Your task to perform on an android device: turn off notifications in google photos Image 0: 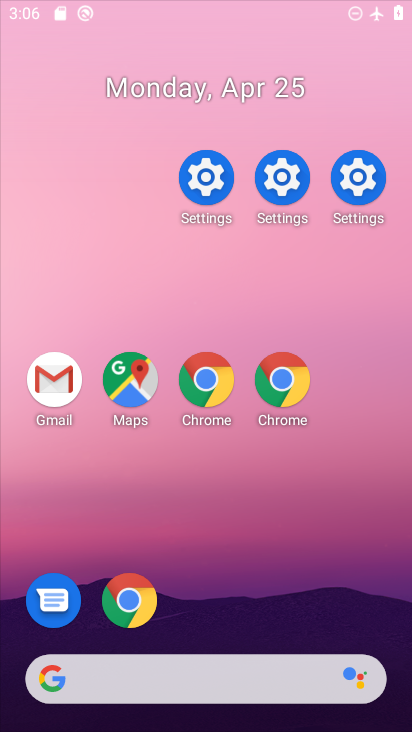
Step 0: click (78, 94)
Your task to perform on an android device: turn off notifications in google photos Image 1: 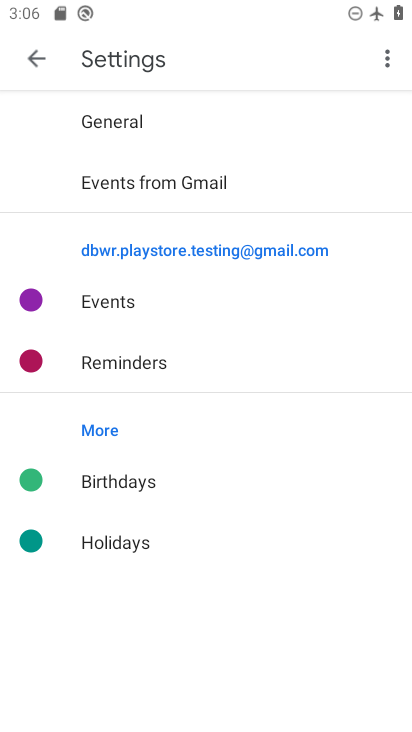
Step 1: press home button
Your task to perform on an android device: turn off notifications in google photos Image 2: 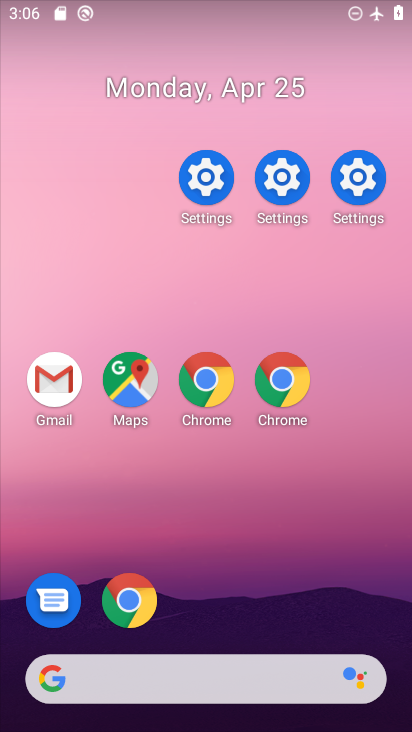
Step 2: drag from (273, 669) to (177, 247)
Your task to perform on an android device: turn off notifications in google photos Image 3: 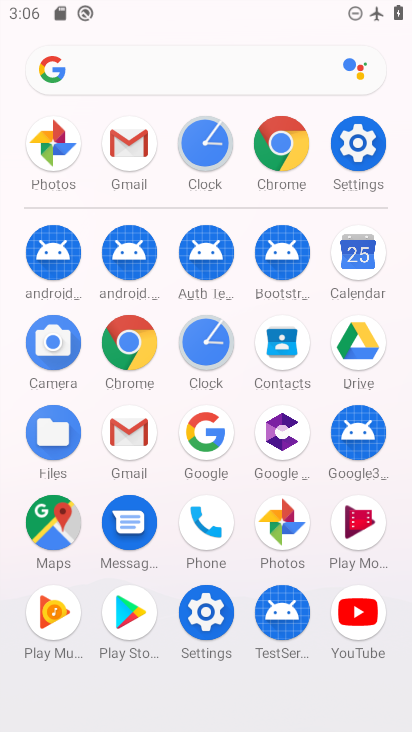
Step 3: click (280, 515)
Your task to perform on an android device: turn off notifications in google photos Image 4: 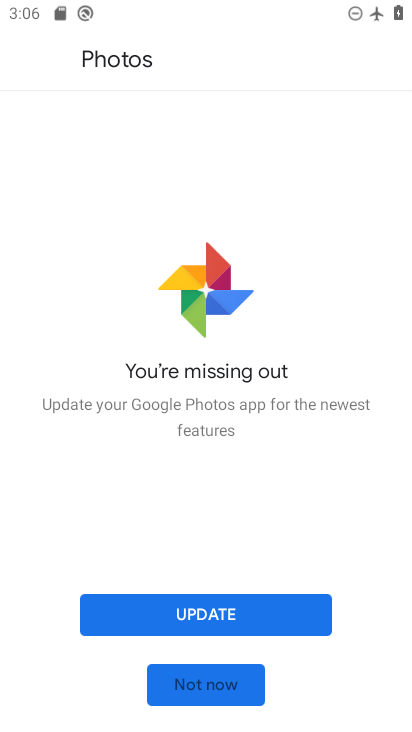
Step 4: click (210, 675)
Your task to perform on an android device: turn off notifications in google photos Image 5: 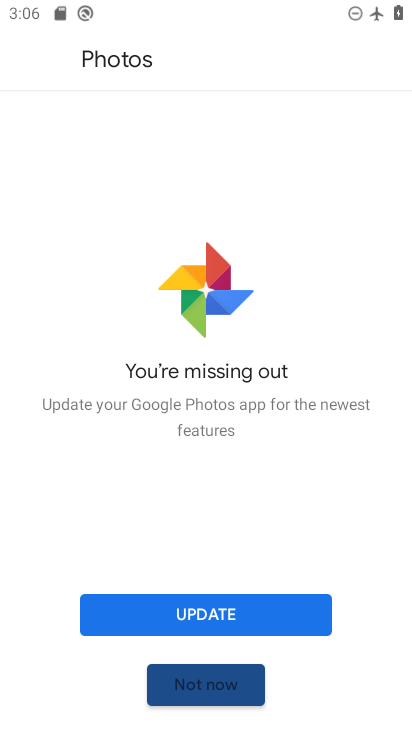
Step 5: click (211, 687)
Your task to perform on an android device: turn off notifications in google photos Image 6: 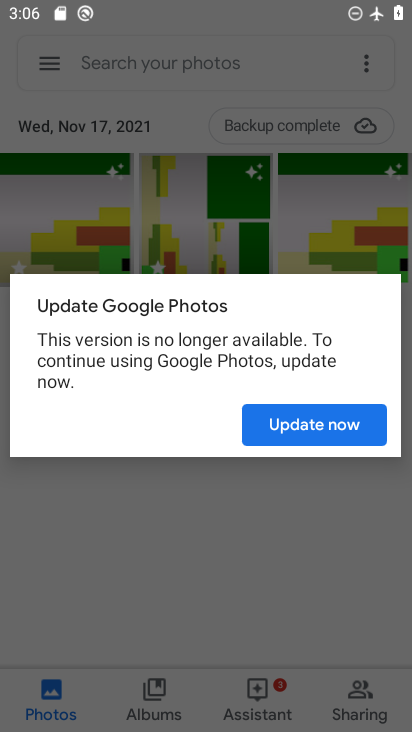
Step 6: click (315, 417)
Your task to perform on an android device: turn off notifications in google photos Image 7: 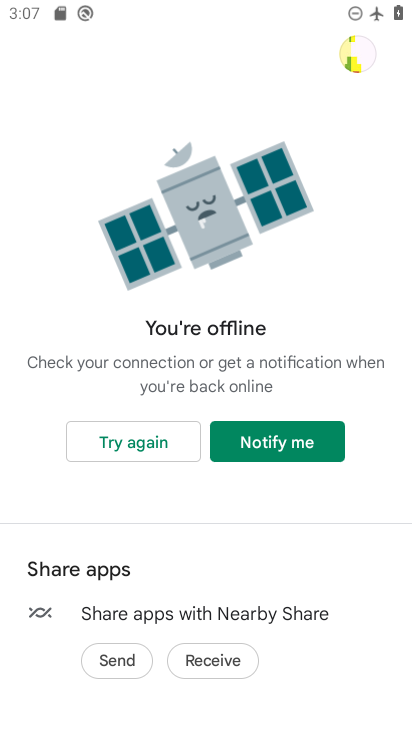
Step 7: task complete